Your task to perform on an android device: turn pop-ups on in chrome Image 0: 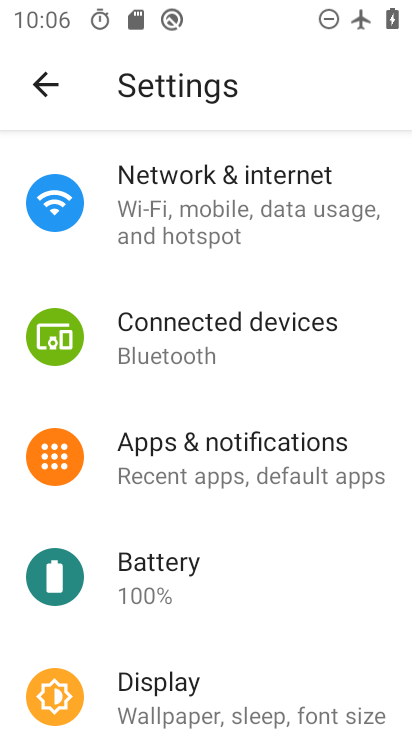
Step 0: press home button
Your task to perform on an android device: turn pop-ups on in chrome Image 1: 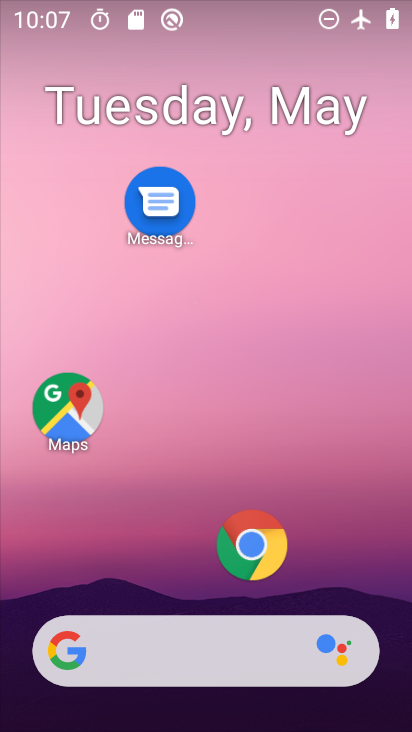
Step 1: click (252, 531)
Your task to perform on an android device: turn pop-ups on in chrome Image 2: 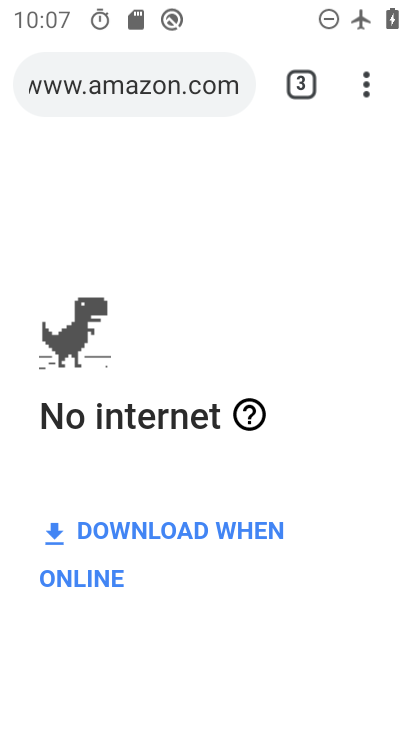
Step 2: drag from (367, 88) to (161, 641)
Your task to perform on an android device: turn pop-ups on in chrome Image 3: 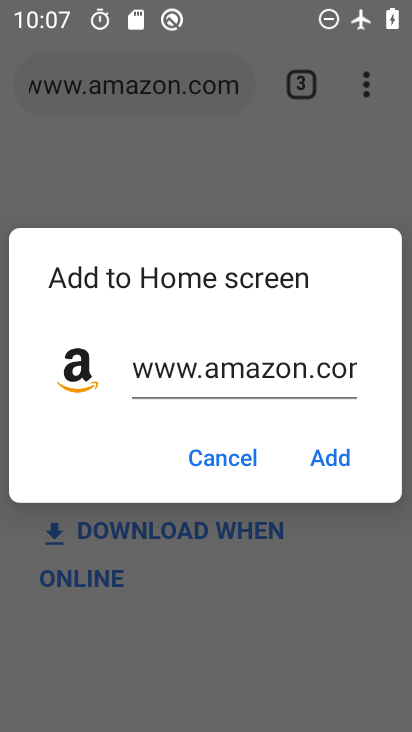
Step 3: click (213, 455)
Your task to perform on an android device: turn pop-ups on in chrome Image 4: 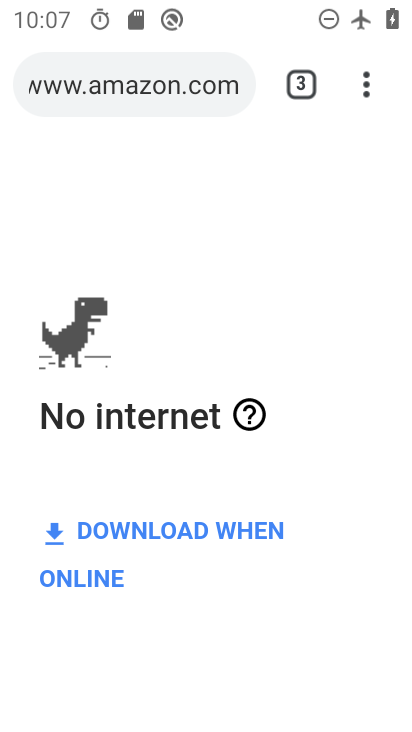
Step 4: drag from (360, 91) to (96, 593)
Your task to perform on an android device: turn pop-ups on in chrome Image 5: 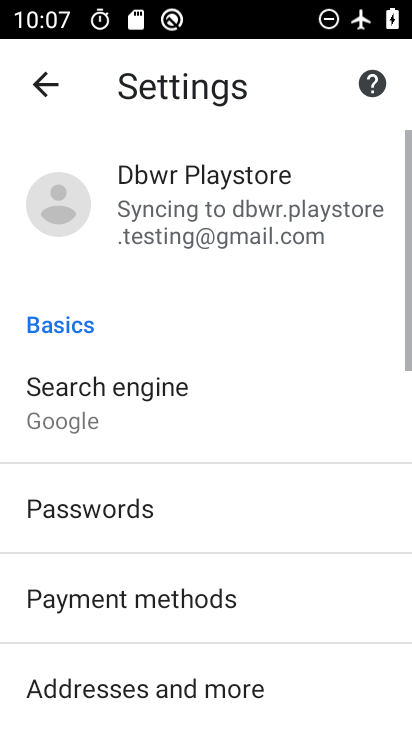
Step 5: drag from (220, 622) to (225, 293)
Your task to perform on an android device: turn pop-ups on in chrome Image 6: 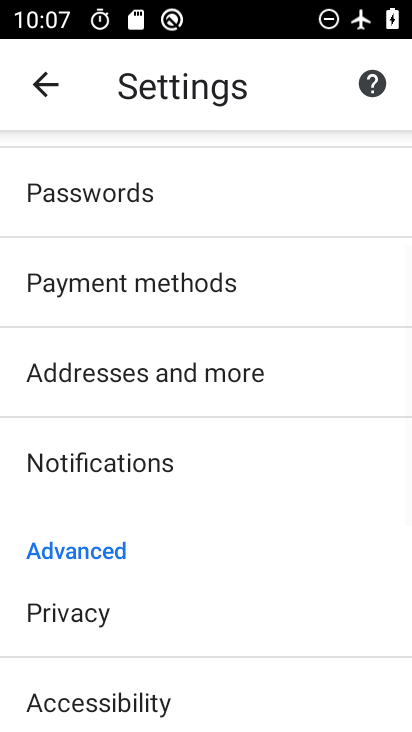
Step 6: drag from (200, 586) to (201, 352)
Your task to perform on an android device: turn pop-ups on in chrome Image 7: 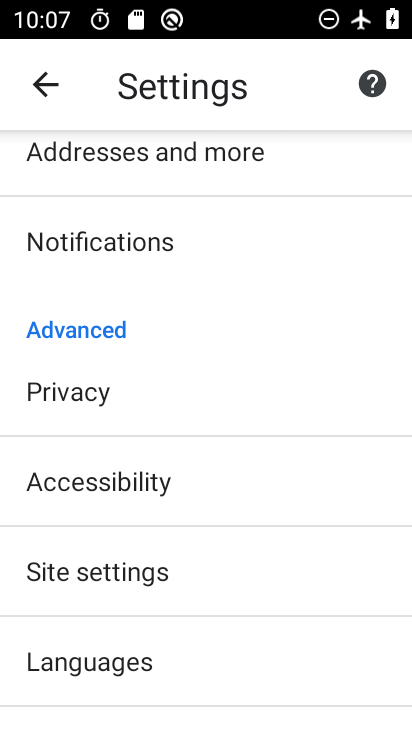
Step 7: click (165, 550)
Your task to perform on an android device: turn pop-ups on in chrome Image 8: 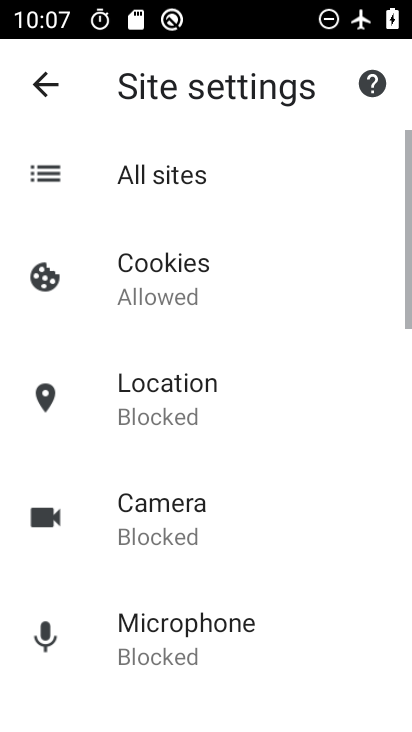
Step 8: drag from (190, 615) to (222, 269)
Your task to perform on an android device: turn pop-ups on in chrome Image 9: 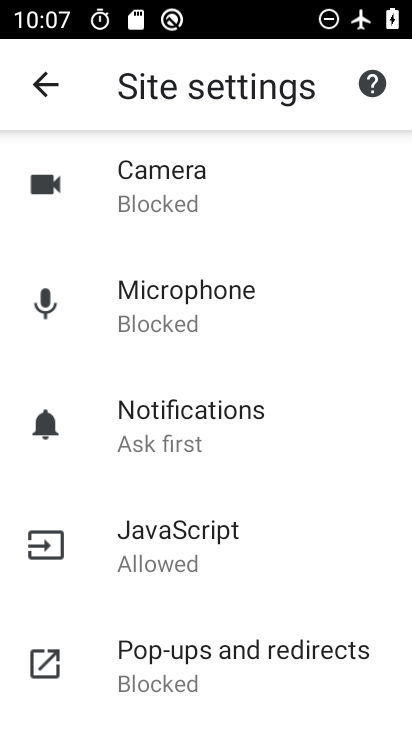
Step 9: click (196, 677)
Your task to perform on an android device: turn pop-ups on in chrome Image 10: 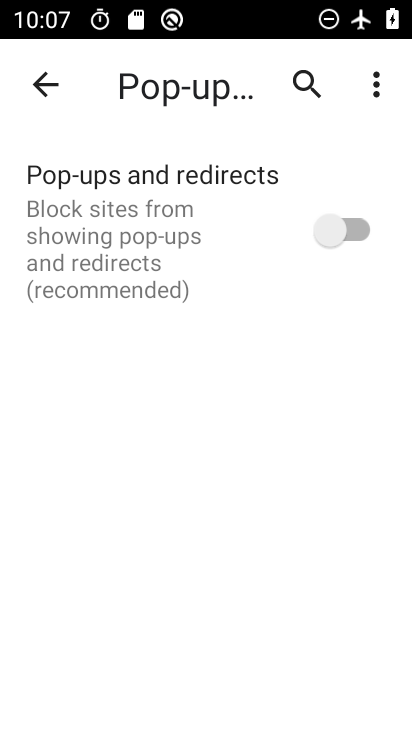
Step 10: click (363, 220)
Your task to perform on an android device: turn pop-ups on in chrome Image 11: 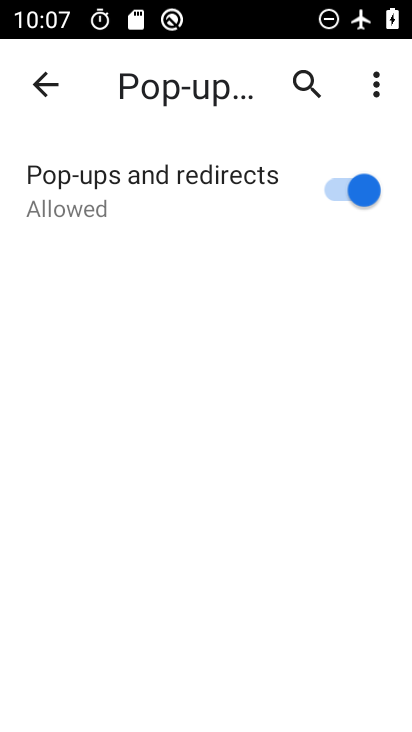
Step 11: task complete